Your task to perform on an android device: add a contact Image 0: 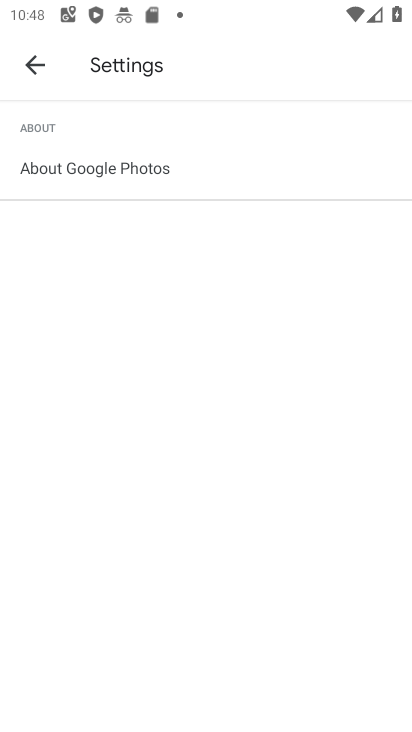
Step 0: press home button
Your task to perform on an android device: add a contact Image 1: 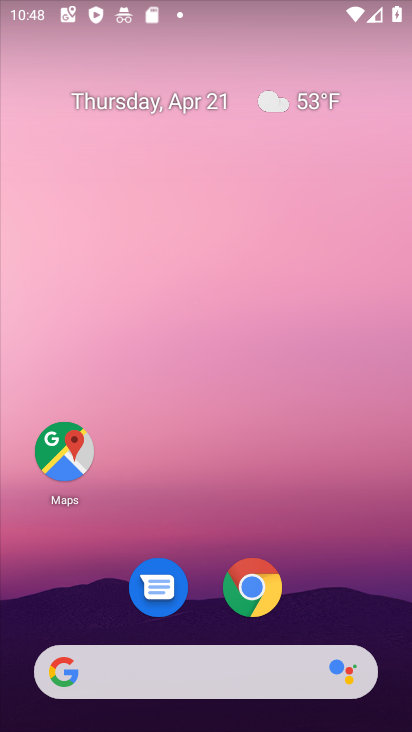
Step 1: drag from (167, 686) to (170, 85)
Your task to perform on an android device: add a contact Image 2: 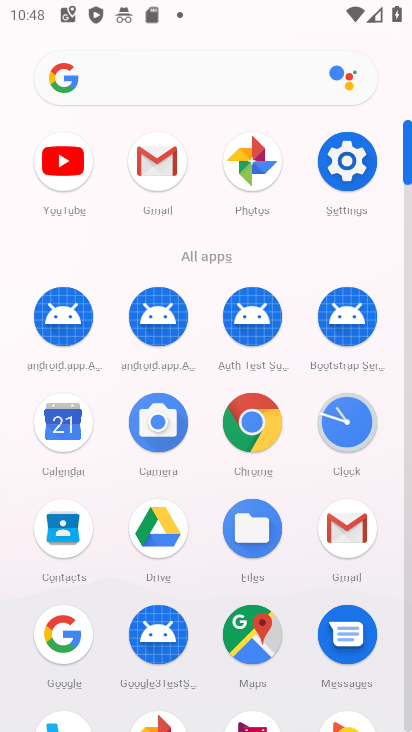
Step 2: click (63, 523)
Your task to perform on an android device: add a contact Image 3: 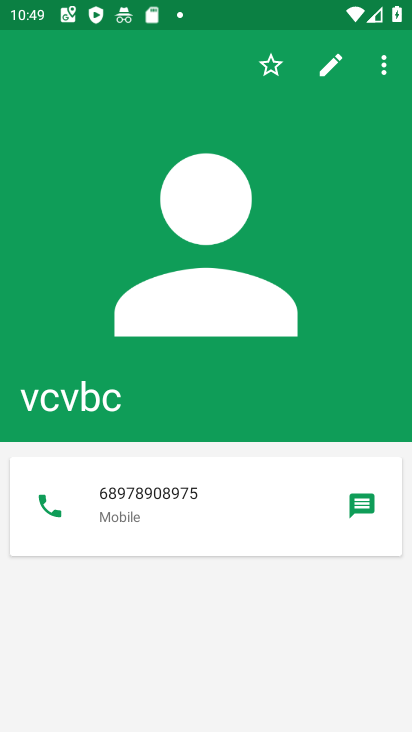
Step 3: press back button
Your task to perform on an android device: add a contact Image 4: 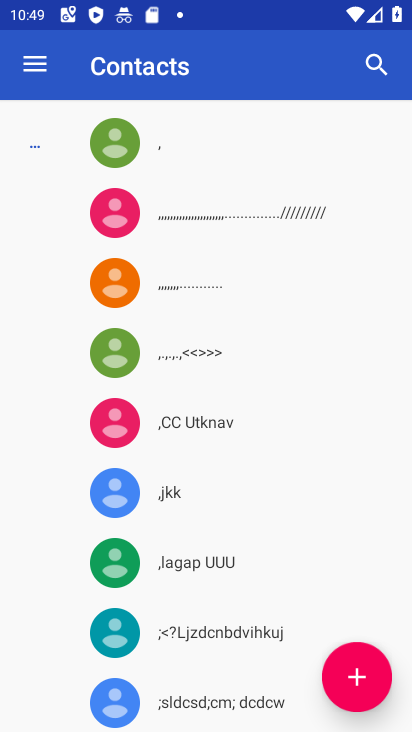
Step 4: click (364, 688)
Your task to perform on an android device: add a contact Image 5: 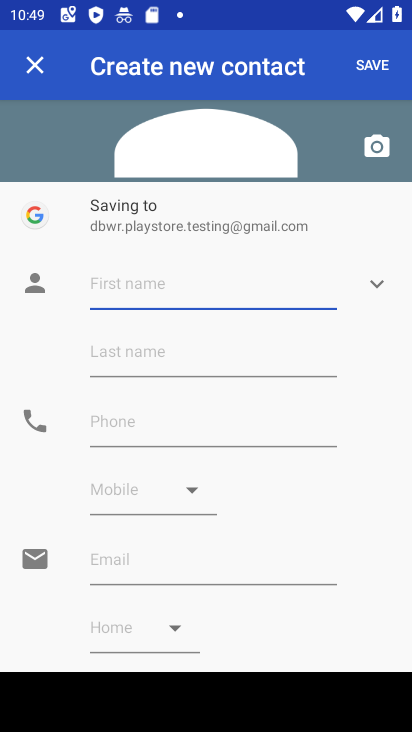
Step 5: type "vvccxc"
Your task to perform on an android device: add a contact Image 6: 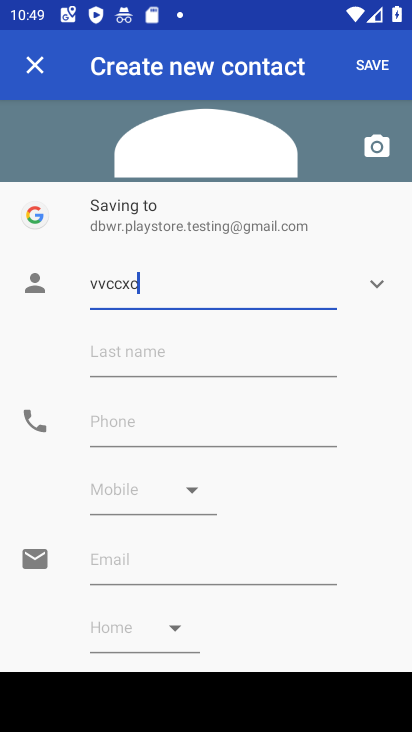
Step 6: click (114, 433)
Your task to perform on an android device: add a contact Image 7: 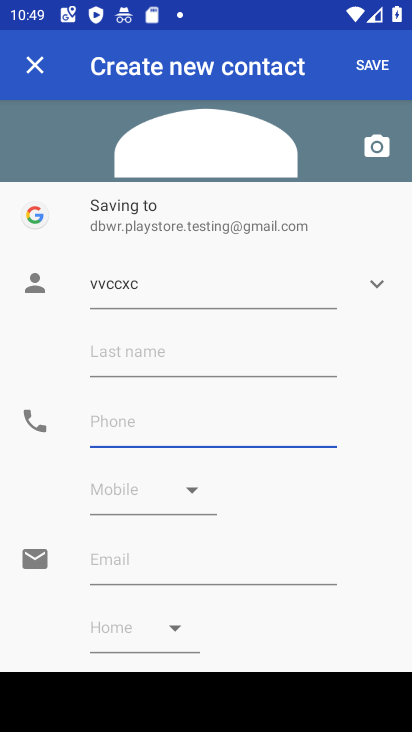
Step 7: type "654345"
Your task to perform on an android device: add a contact Image 8: 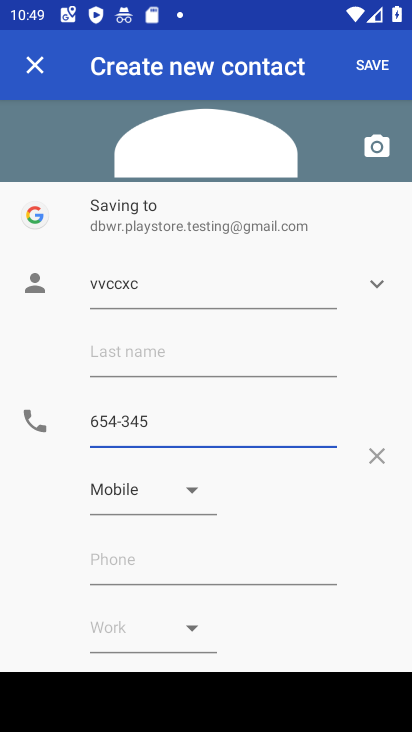
Step 8: click (383, 56)
Your task to perform on an android device: add a contact Image 9: 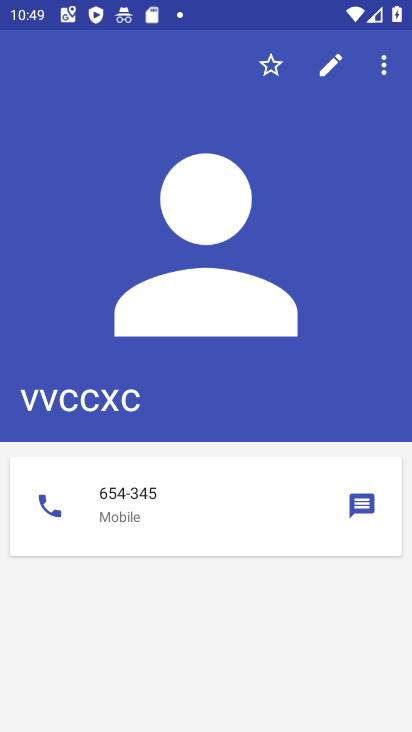
Step 9: task complete